Your task to perform on an android device: clear all cookies in the chrome app Image 0: 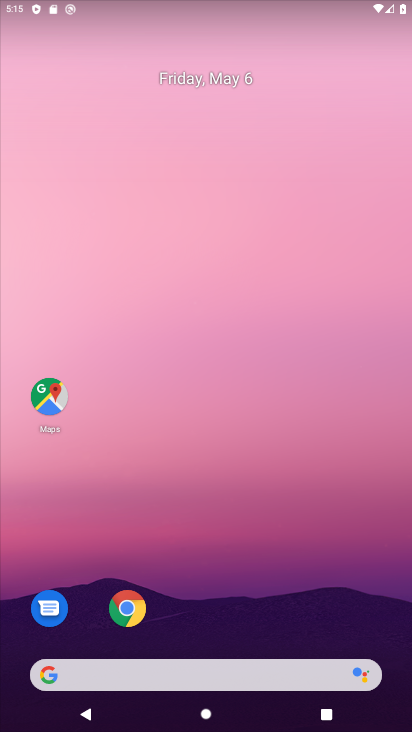
Step 0: drag from (293, 465) to (321, 342)
Your task to perform on an android device: clear all cookies in the chrome app Image 1: 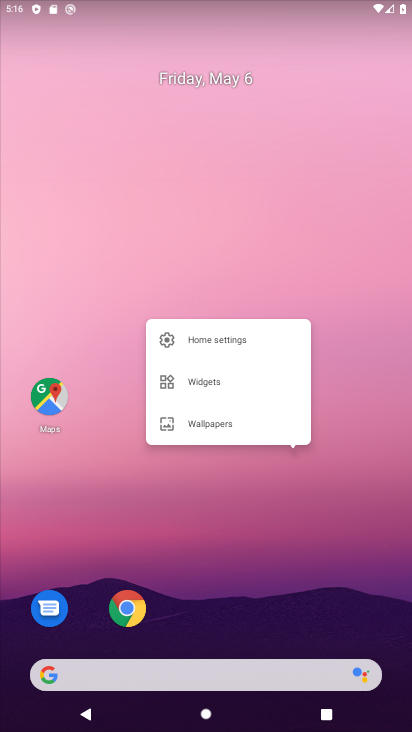
Step 1: click (127, 624)
Your task to perform on an android device: clear all cookies in the chrome app Image 2: 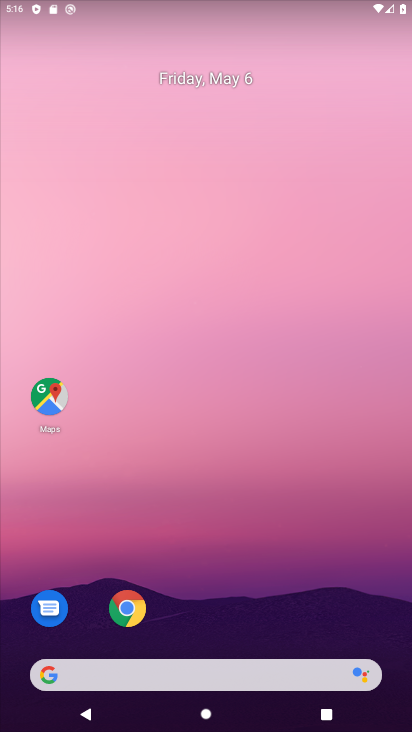
Step 2: click (125, 611)
Your task to perform on an android device: clear all cookies in the chrome app Image 3: 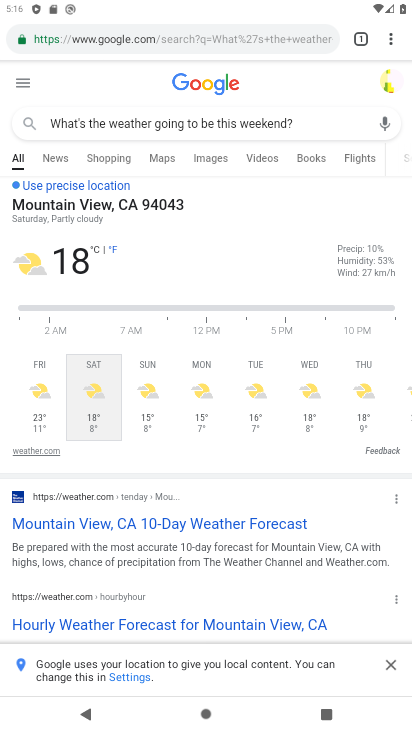
Step 3: drag from (390, 44) to (268, 420)
Your task to perform on an android device: clear all cookies in the chrome app Image 4: 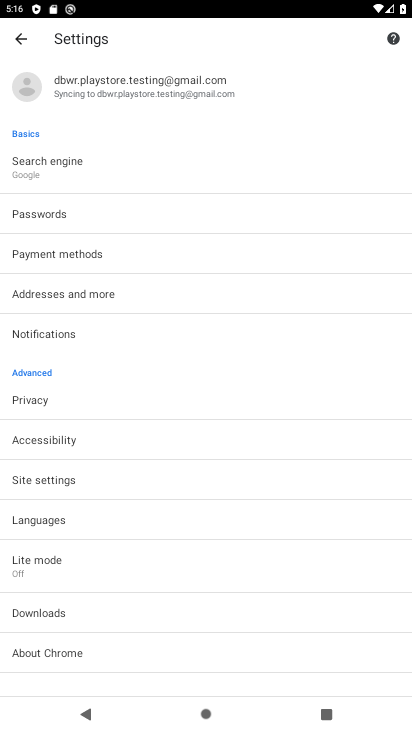
Step 4: click (65, 475)
Your task to perform on an android device: clear all cookies in the chrome app Image 5: 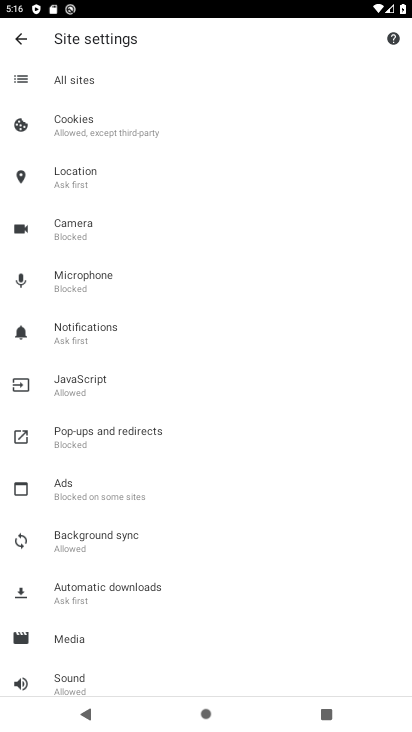
Step 5: click (25, 47)
Your task to perform on an android device: clear all cookies in the chrome app Image 6: 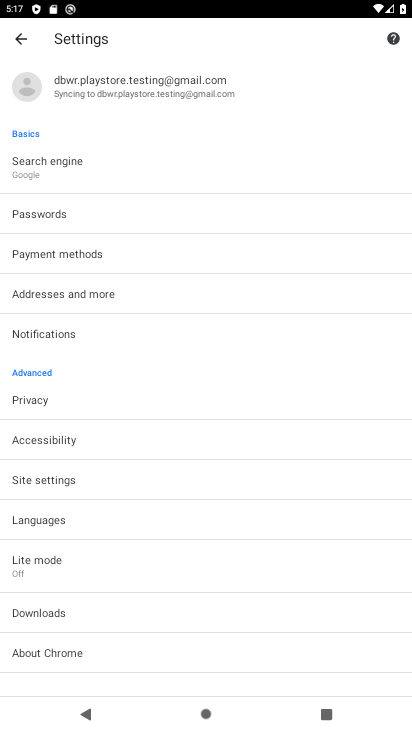
Step 6: click (67, 407)
Your task to perform on an android device: clear all cookies in the chrome app Image 7: 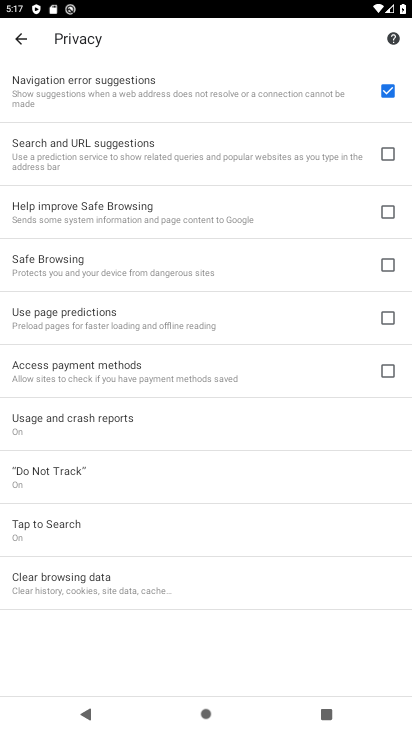
Step 7: click (101, 589)
Your task to perform on an android device: clear all cookies in the chrome app Image 8: 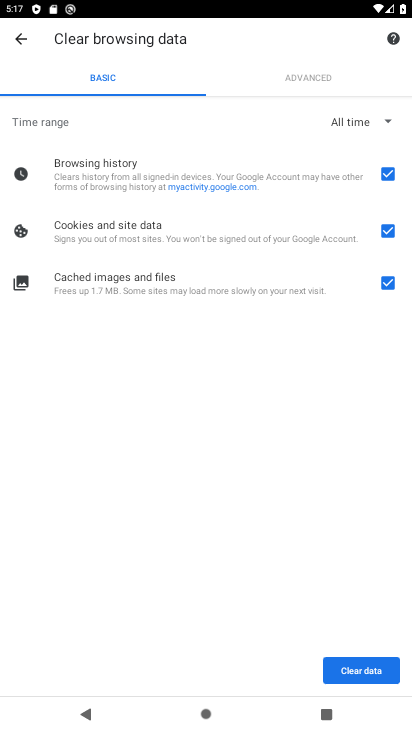
Step 8: click (370, 665)
Your task to perform on an android device: clear all cookies in the chrome app Image 9: 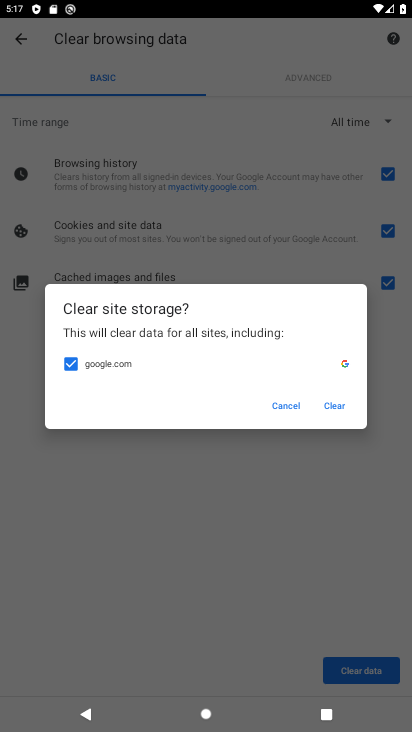
Step 9: click (340, 405)
Your task to perform on an android device: clear all cookies in the chrome app Image 10: 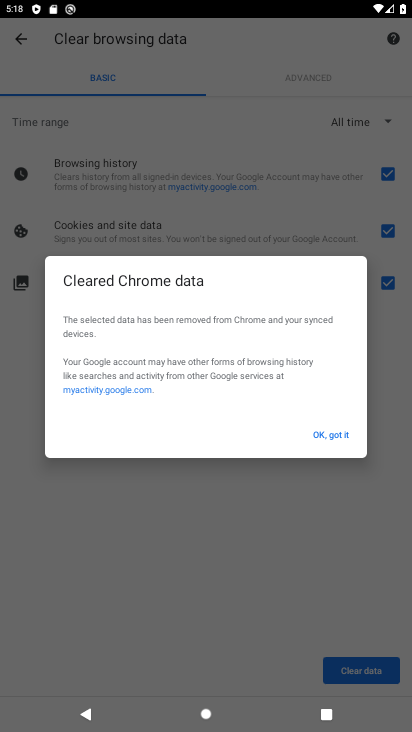
Step 10: click (326, 430)
Your task to perform on an android device: clear all cookies in the chrome app Image 11: 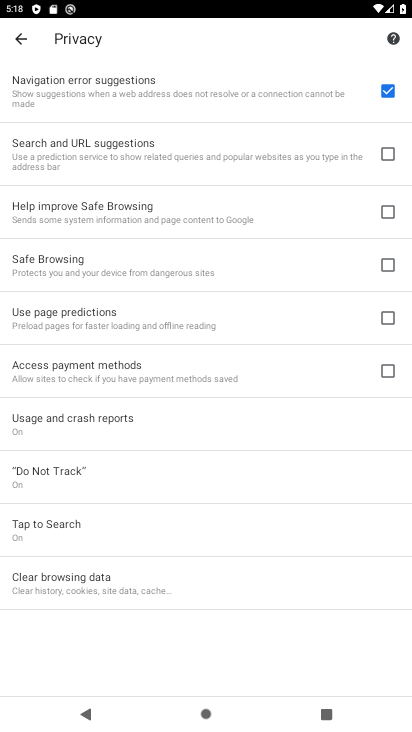
Step 11: task complete